Your task to perform on an android device: Go to notification settings Image 0: 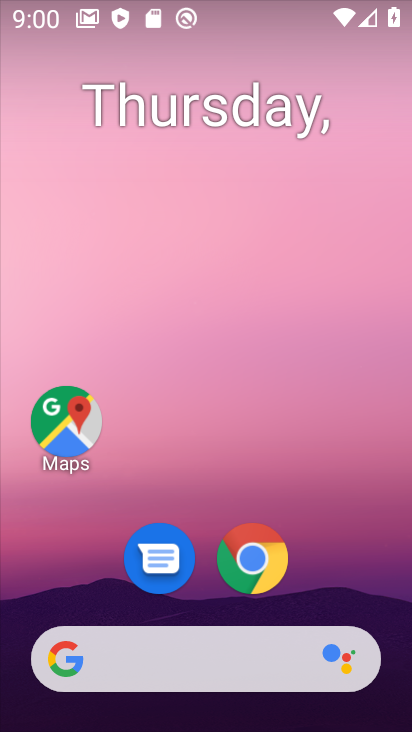
Step 0: drag from (384, 615) to (334, 135)
Your task to perform on an android device: Go to notification settings Image 1: 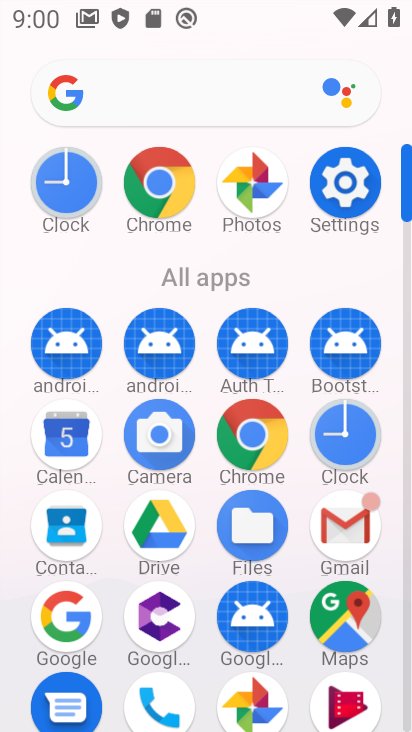
Step 1: click (406, 710)
Your task to perform on an android device: Go to notification settings Image 2: 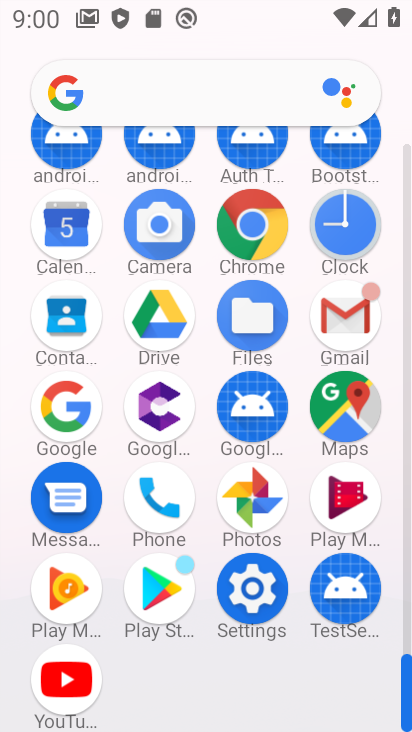
Step 2: click (251, 587)
Your task to perform on an android device: Go to notification settings Image 3: 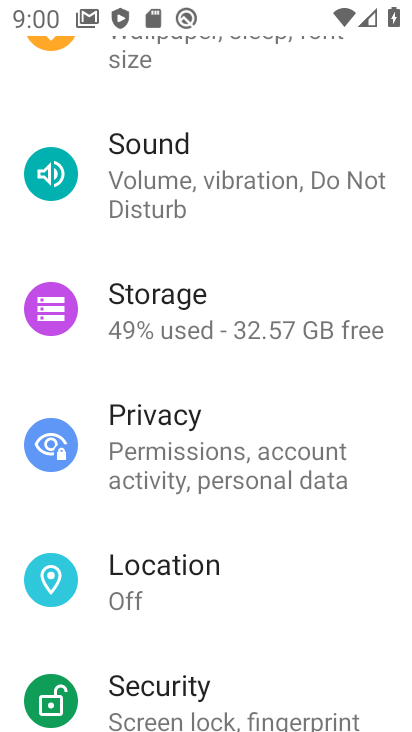
Step 3: drag from (366, 202) to (356, 522)
Your task to perform on an android device: Go to notification settings Image 4: 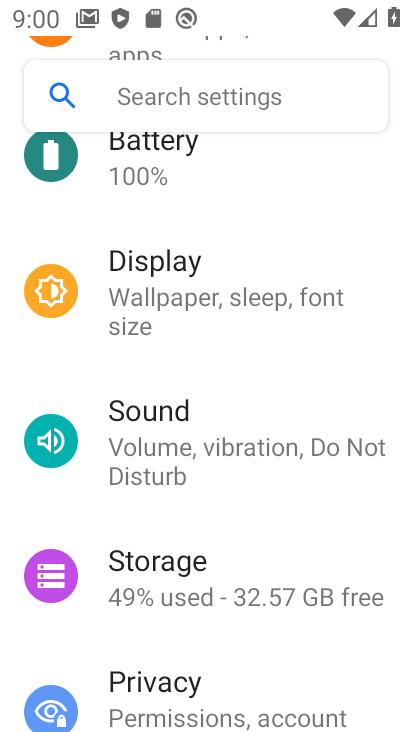
Step 4: drag from (361, 180) to (376, 505)
Your task to perform on an android device: Go to notification settings Image 5: 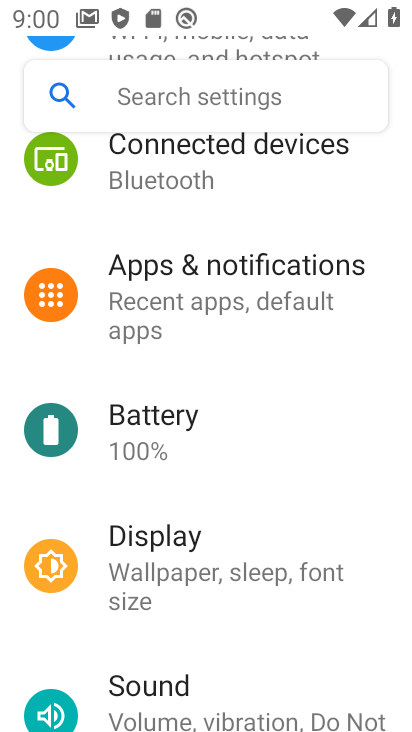
Step 5: click (134, 279)
Your task to perform on an android device: Go to notification settings Image 6: 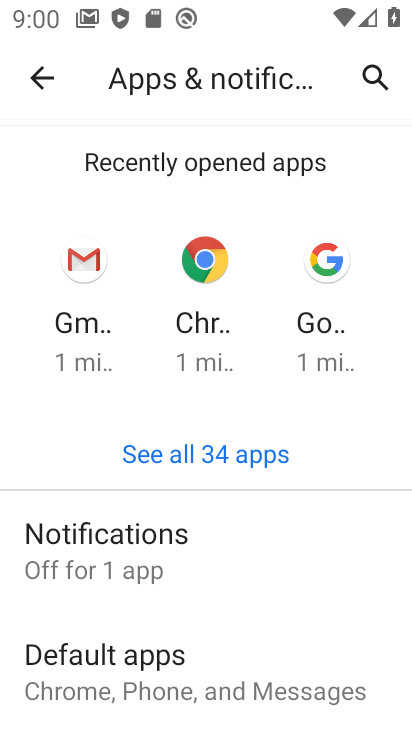
Step 6: click (117, 561)
Your task to perform on an android device: Go to notification settings Image 7: 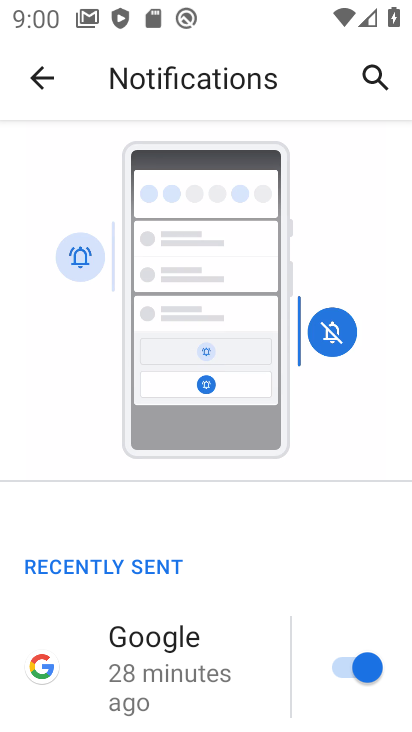
Step 7: drag from (290, 660) to (280, 209)
Your task to perform on an android device: Go to notification settings Image 8: 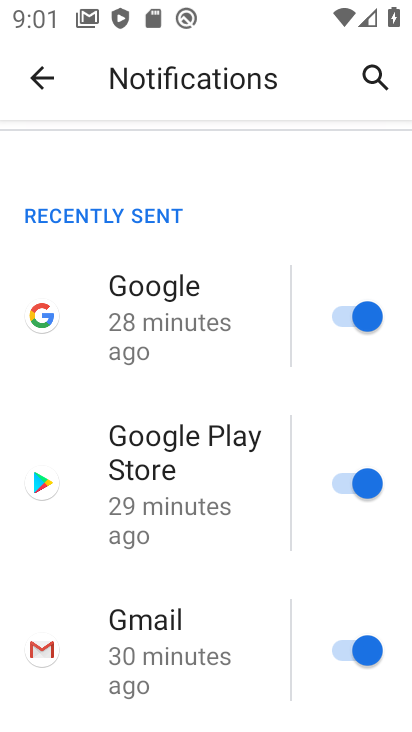
Step 8: drag from (289, 681) to (283, 114)
Your task to perform on an android device: Go to notification settings Image 9: 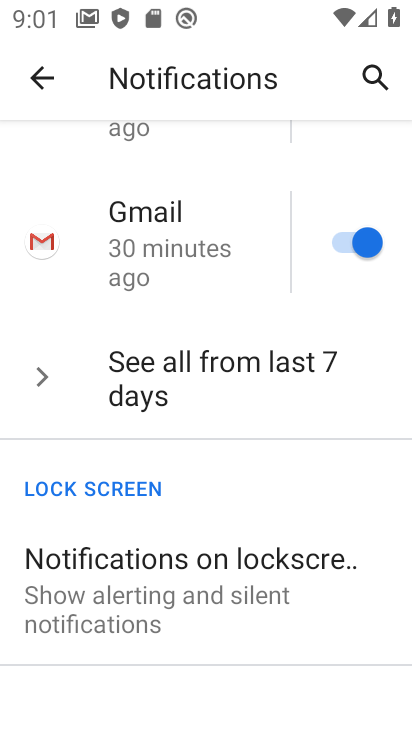
Step 9: drag from (285, 523) to (289, 179)
Your task to perform on an android device: Go to notification settings Image 10: 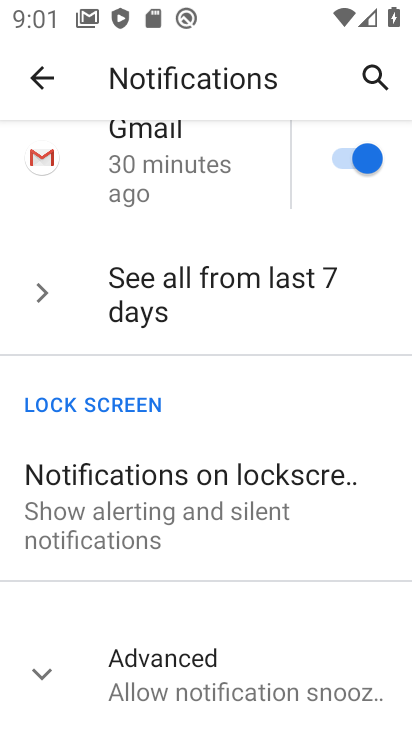
Step 10: click (44, 679)
Your task to perform on an android device: Go to notification settings Image 11: 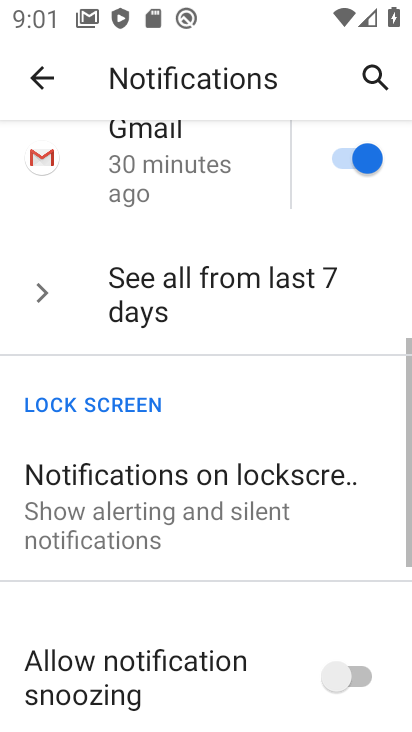
Step 11: task complete